Your task to perform on an android device: see sites visited before in the chrome app Image 0: 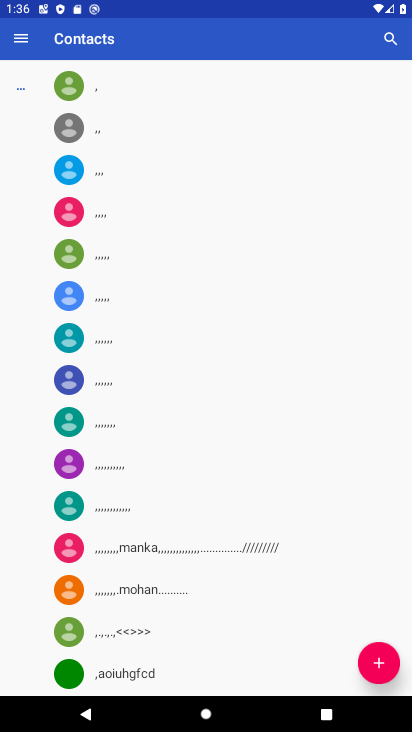
Step 0: press home button
Your task to perform on an android device: see sites visited before in the chrome app Image 1: 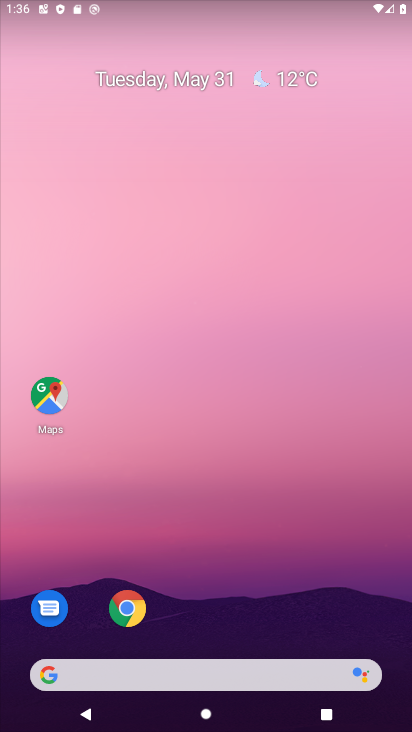
Step 1: drag from (350, 588) to (333, 207)
Your task to perform on an android device: see sites visited before in the chrome app Image 2: 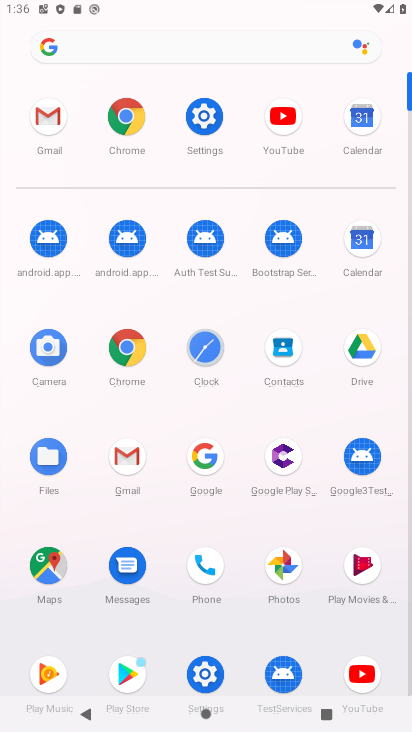
Step 2: click (129, 361)
Your task to perform on an android device: see sites visited before in the chrome app Image 3: 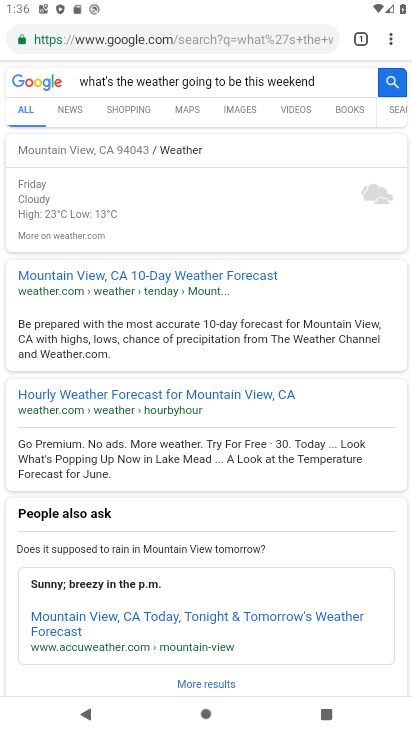
Step 3: task complete